Your task to perform on an android device: Go to Wikipedia Image 0: 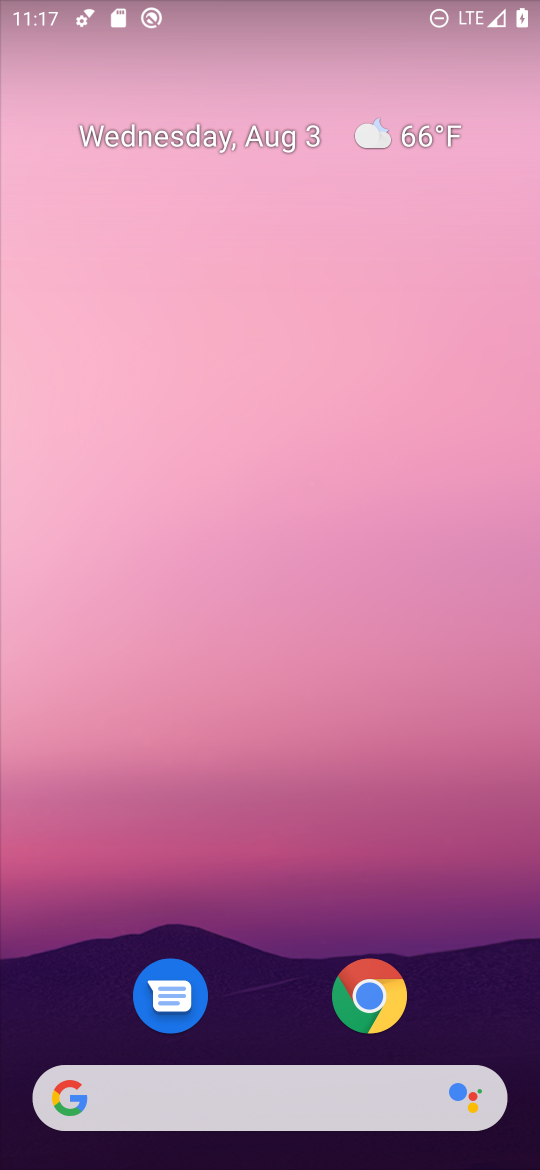
Step 0: drag from (292, 932) to (323, 169)
Your task to perform on an android device: Go to Wikipedia Image 1: 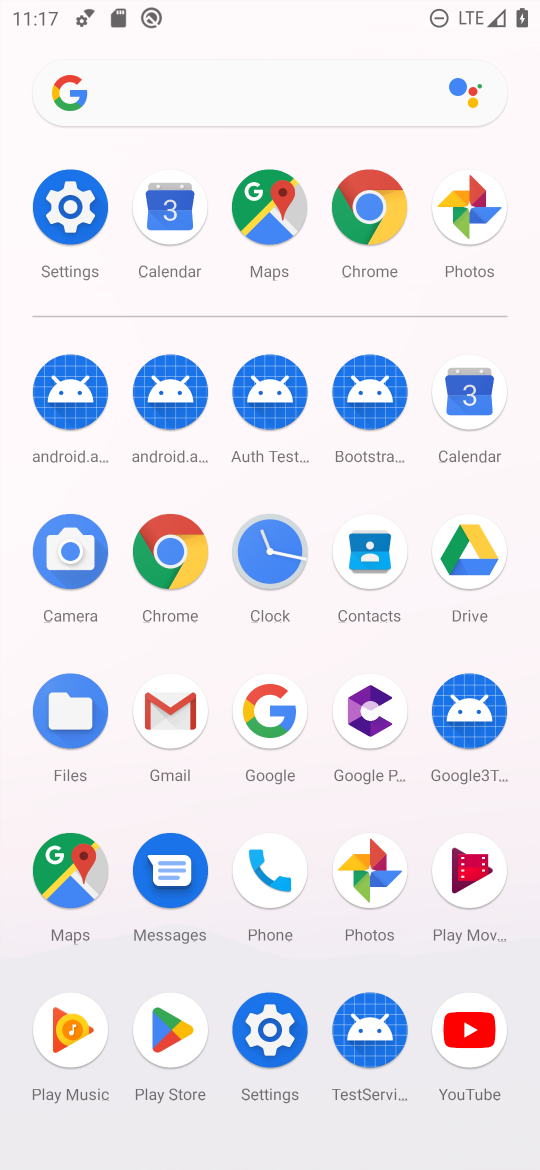
Step 1: click (368, 225)
Your task to perform on an android device: Go to Wikipedia Image 2: 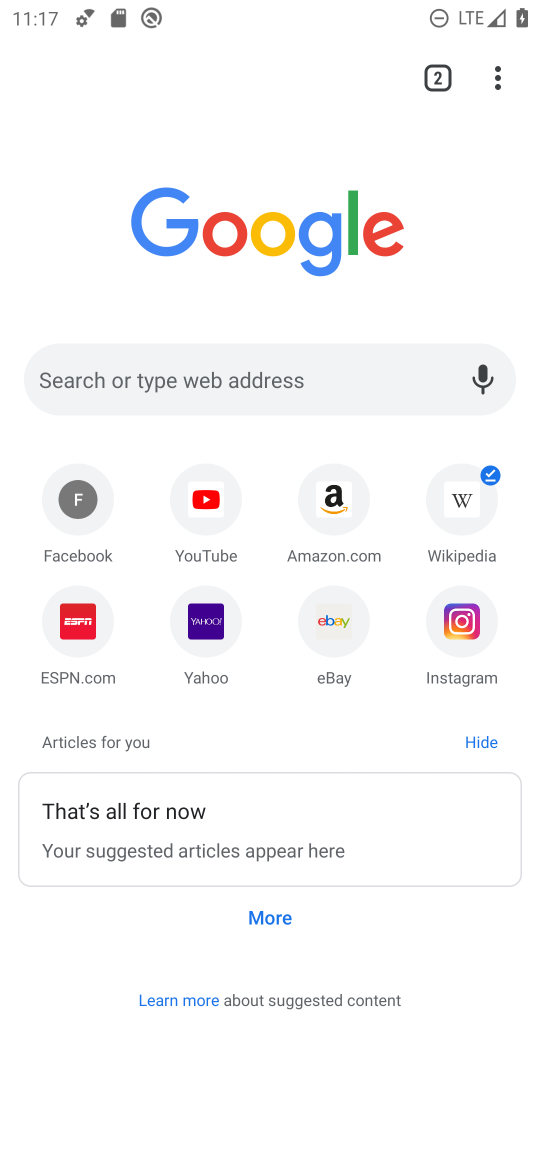
Step 2: click (459, 495)
Your task to perform on an android device: Go to Wikipedia Image 3: 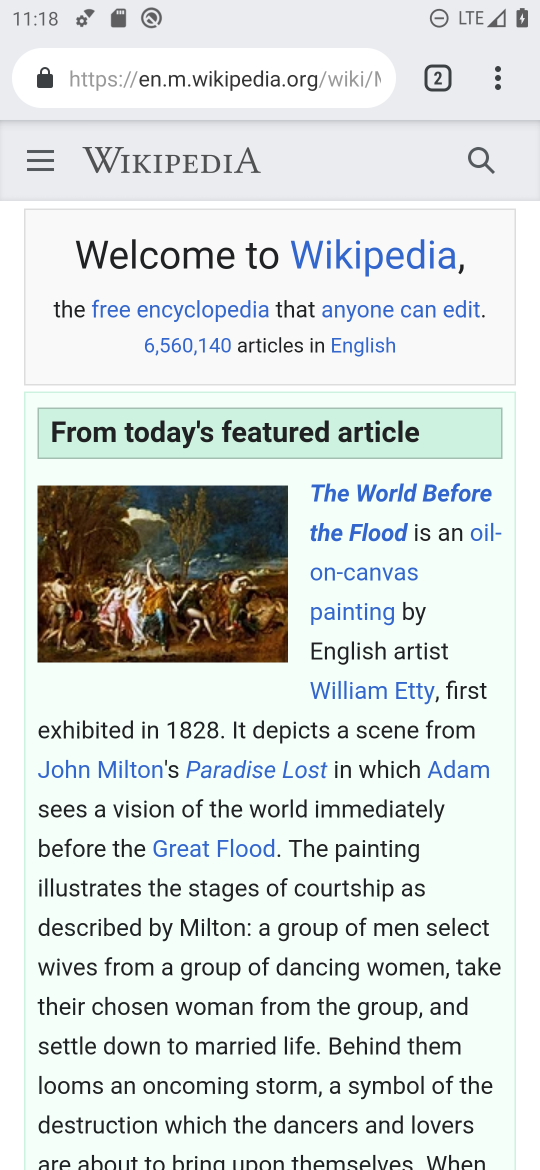
Step 3: task complete